Your task to perform on an android device: turn on priority inbox in the gmail app Image 0: 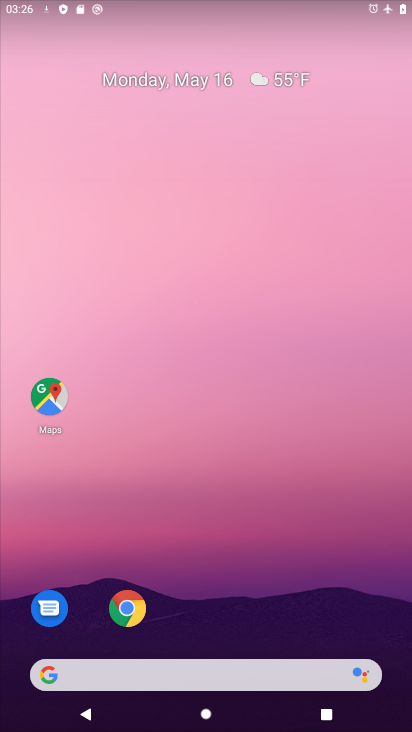
Step 0: drag from (237, 621) to (239, 84)
Your task to perform on an android device: turn on priority inbox in the gmail app Image 1: 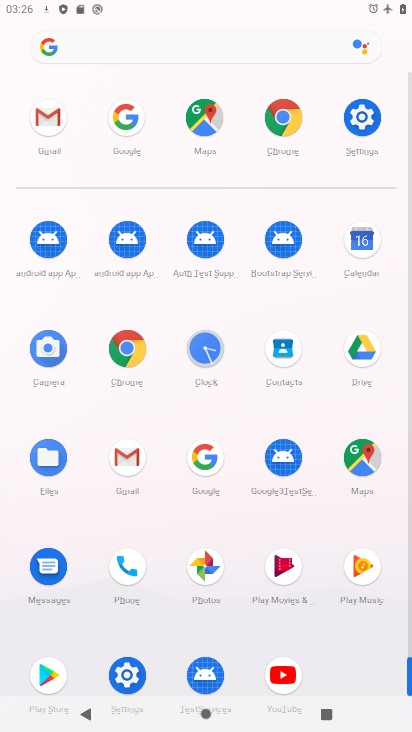
Step 1: click (56, 125)
Your task to perform on an android device: turn on priority inbox in the gmail app Image 2: 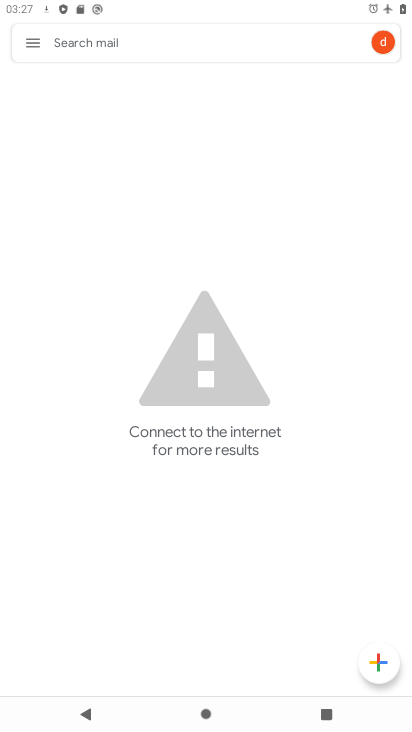
Step 2: click (33, 49)
Your task to perform on an android device: turn on priority inbox in the gmail app Image 3: 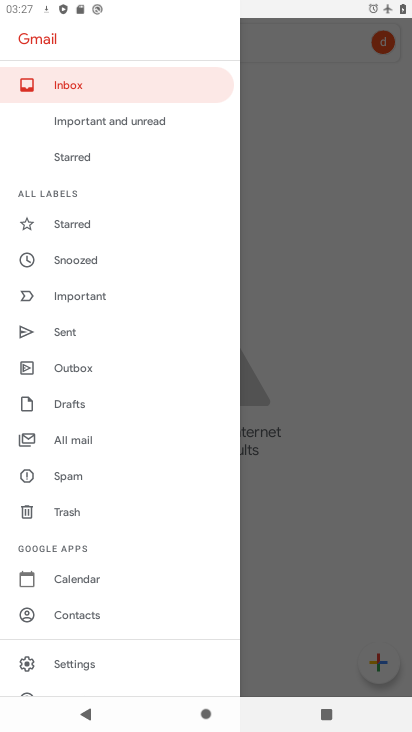
Step 3: click (107, 663)
Your task to perform on an android device: turn on priority inbox in the gmail app Image 4: 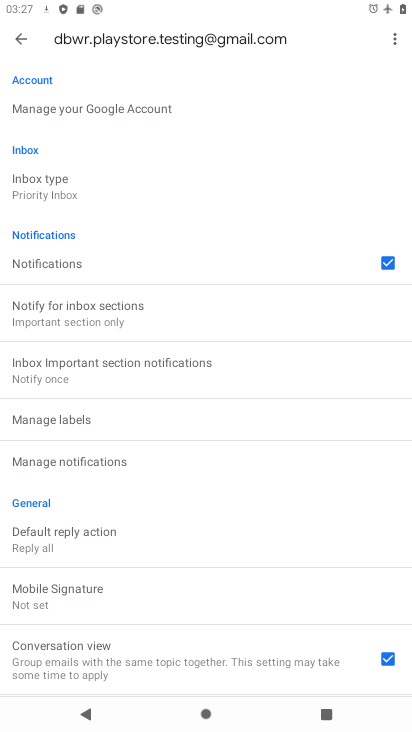
Step 4: click (99, 178)
Your task to perform on an android device: turn on priority inbox in the gmail app Image 5: 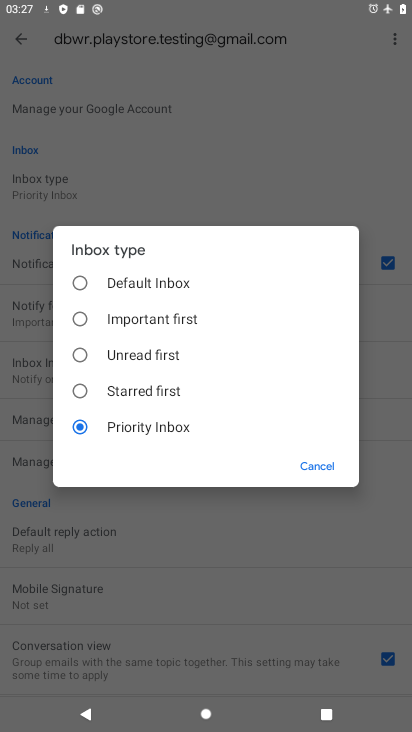
Step 5: task complete